Your task to perform on an android device: toggle notification dots Image 0: 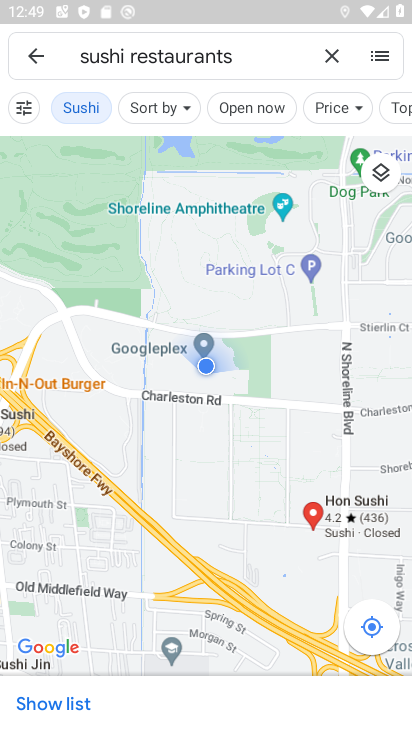
Step 0: task complete